Your task to perform on an android device: open chrome and create a bookmark for the current page Image 0: 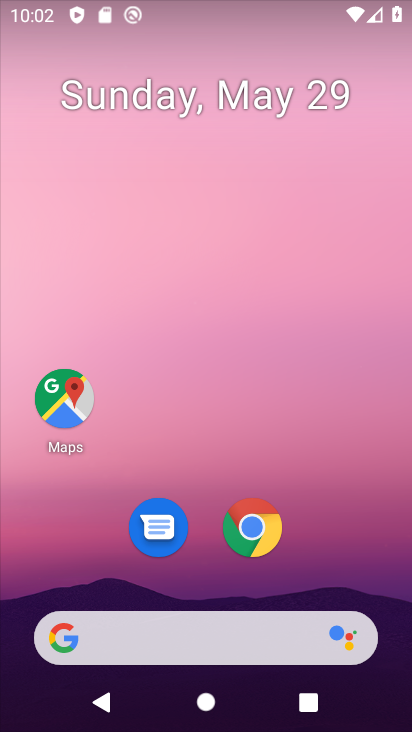
Step 0: click (256, 534)
Your task to perform on an android device: open chrome and create a bookmark for the current page Image 1: 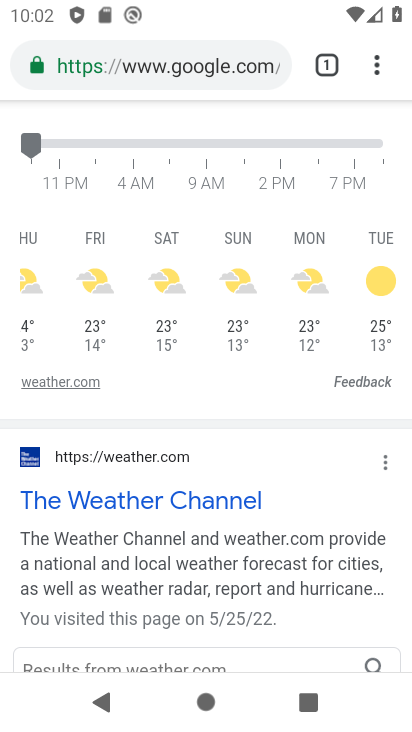
Step 1: task complete